Your task to perform on an android device: turn off wifi Image 0: 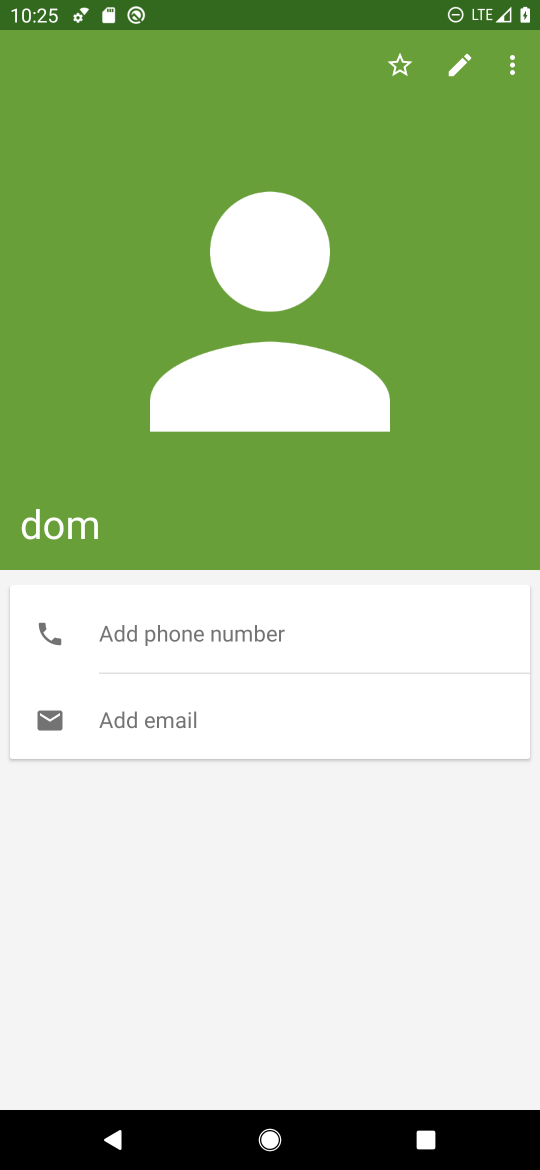
Step 0: press home button
Your task to perform on an android device: turn off wifi Image 1: 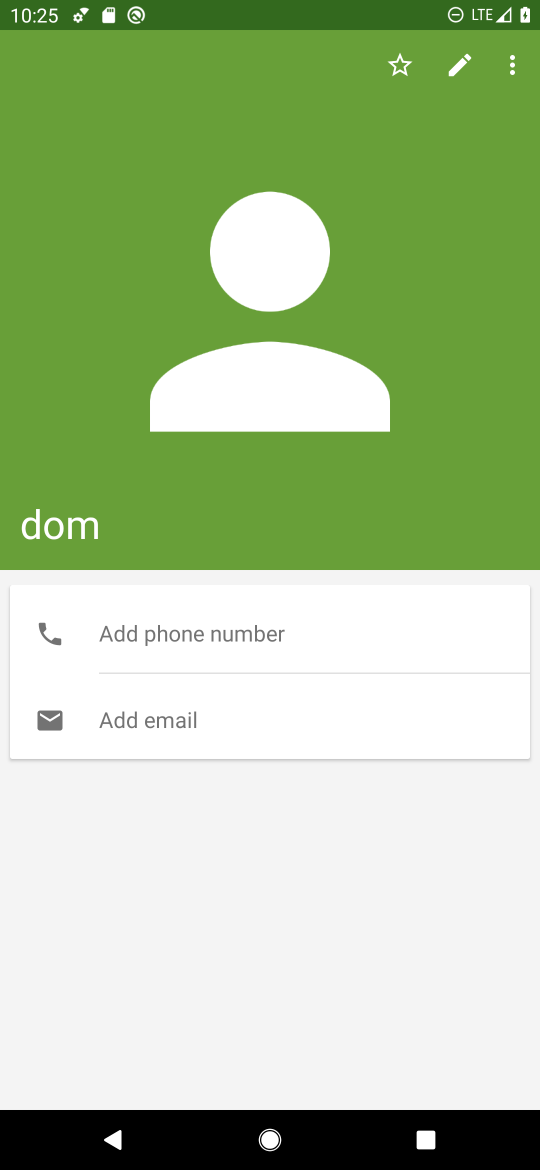
Step 1: press home button
Your task to perform on an android device: turn off wifi Image 2: 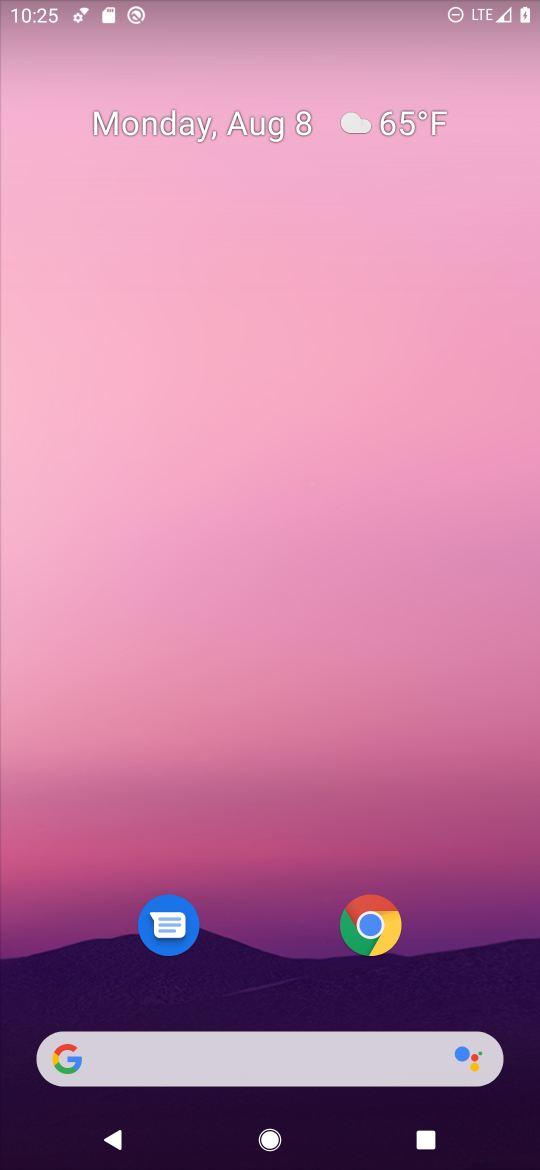
Step 2: drag from (252, 821) to (259, 180)
Your task to perform on an android device: turn off wifi Image 3: 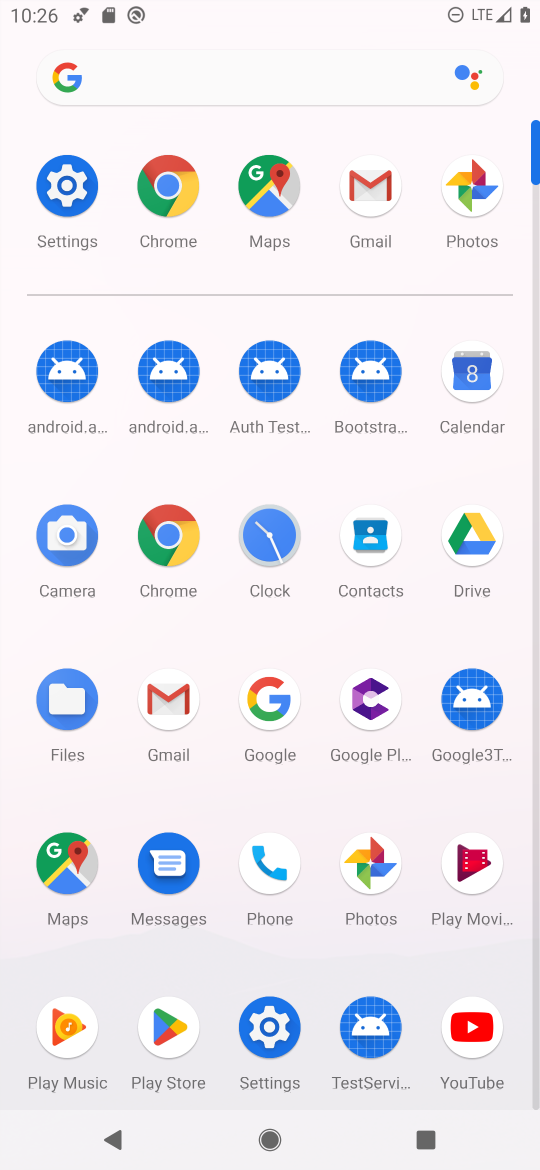
Step 3: click (268, 1030)
Your task to perform on an android device: turn off wifi Image 4: 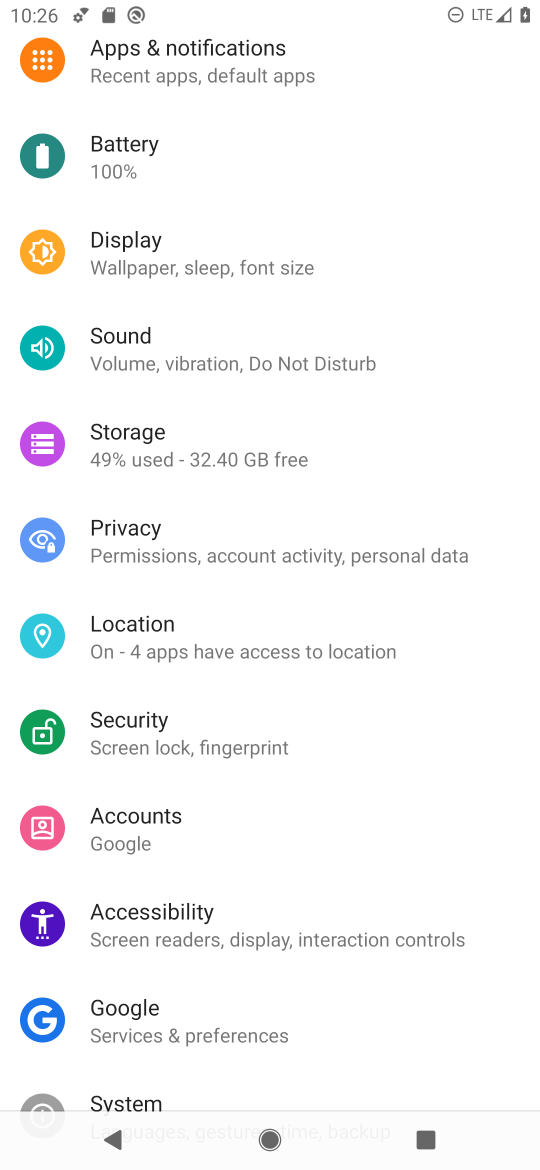
Step 4: drag from (260, 162) to (205, 799)
Your task to perform on an android device: turn off wifi Image 5: 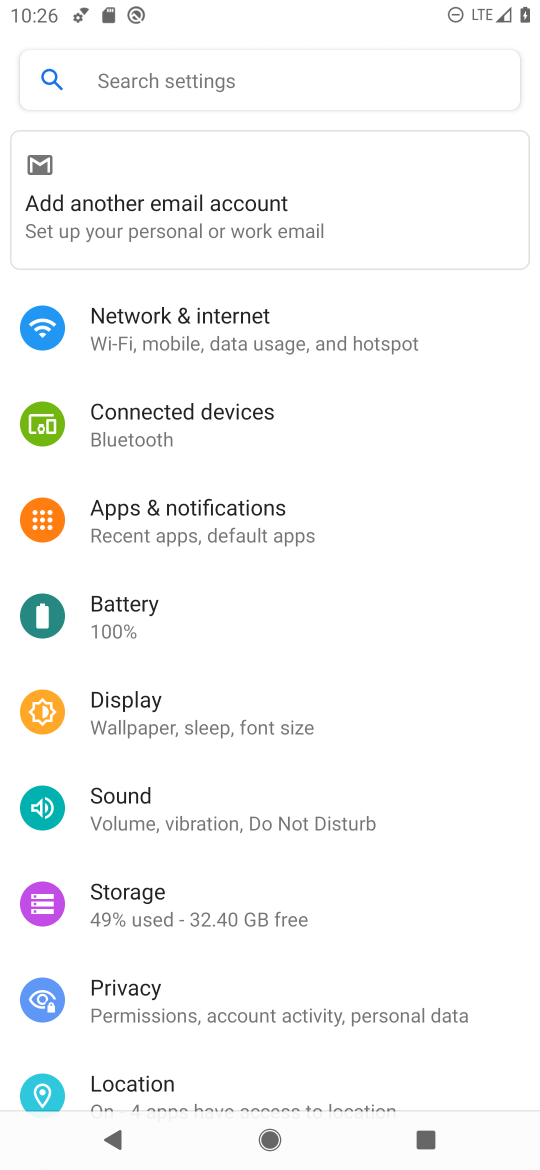
Step 5: click (162, 325)
Your task to perform on an android device: turn off wifi Image 6: 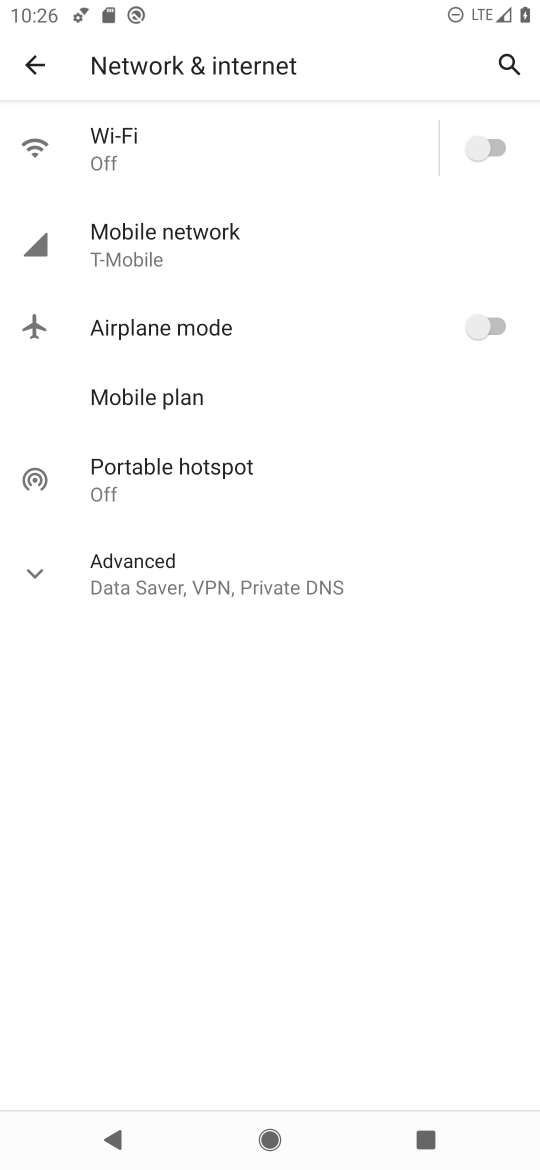
Step 6: task complete